Your task to perform on an android device: Open Reddit.com Image 0: 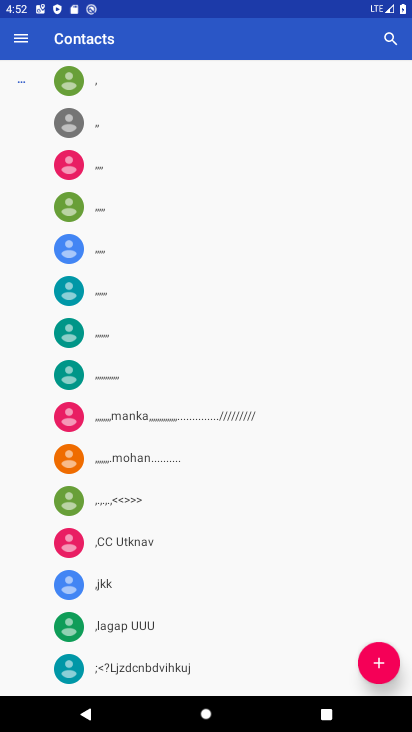
Step 0: press back button
Your task to perform on an android device: Open Reddit.com Image 1: 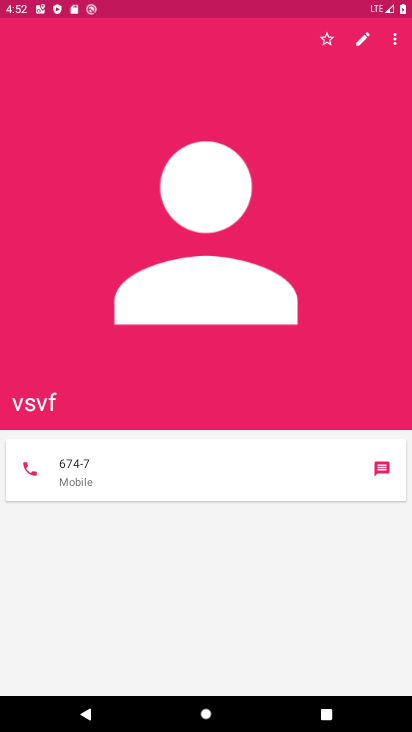
Step 1: press home button
Your task to perform on an android device: Open Reddit.com Image 2: 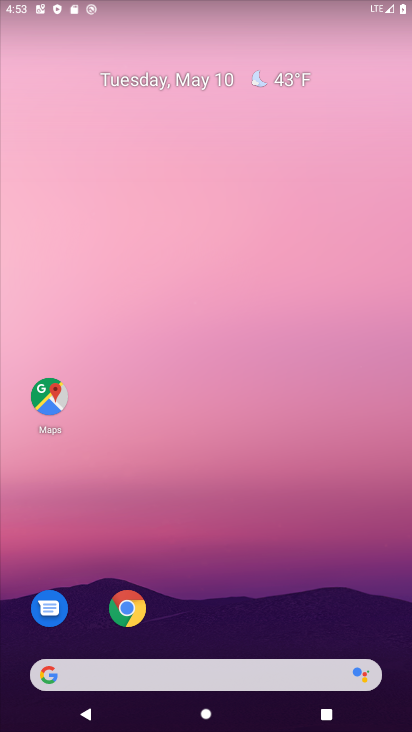
Step 2: click (125, 608)
Your task to perform on an android device: Open Reddit.com Image 3: 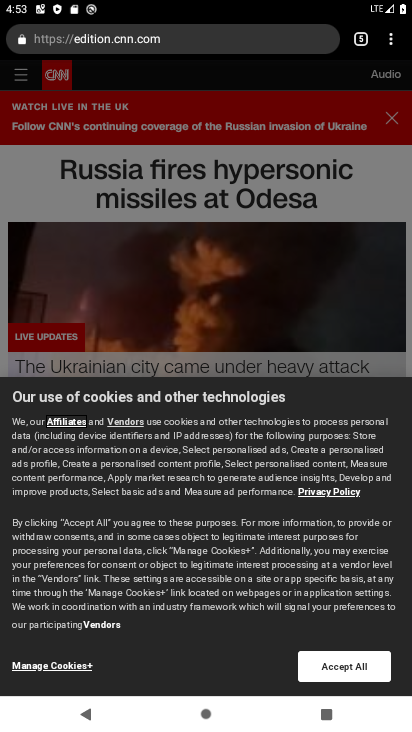
Step 3: click (244, 279)
Your task to perform on an android device: Open Reddit.com Image 4: 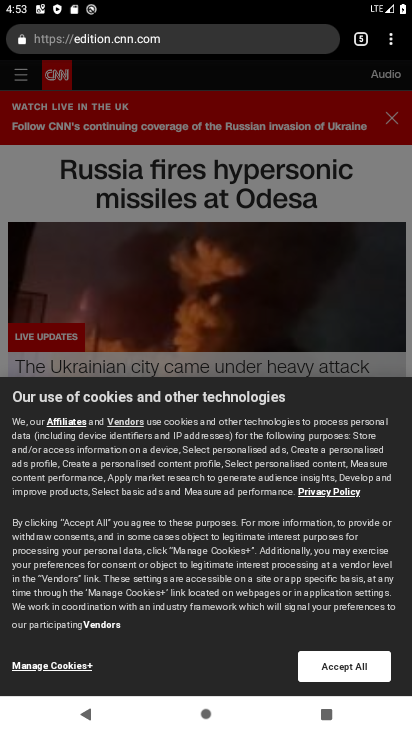
Step 4: click (351, 675)
Your task to perform on an android device: Open Reddit.com Image 5: 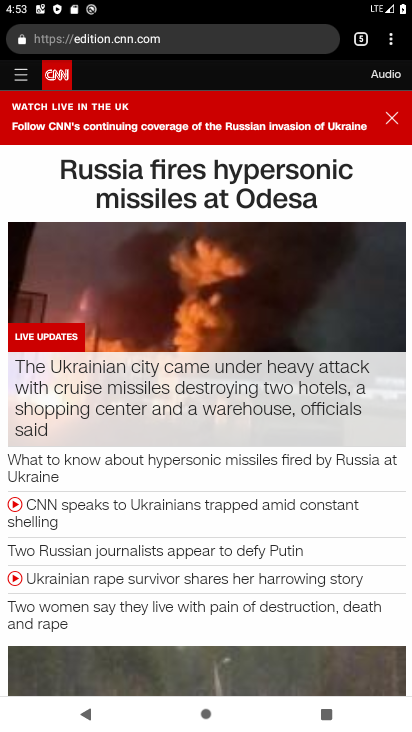
Step 5: click (365, 43)
Your task to perform on an android device: Open Reddit.com Image 6: 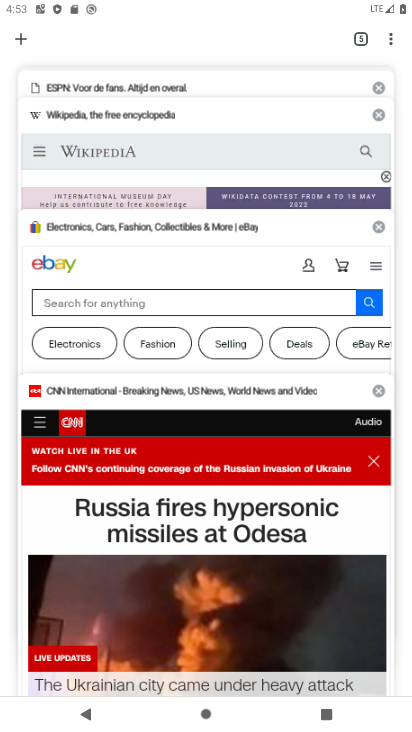
Step 6: click (14, 31)
Your task to perform on an android device: Open Reddit.com Image 7: 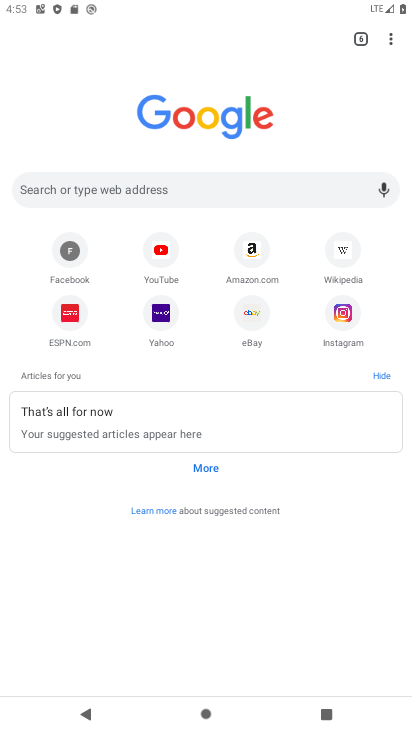
Step 7: click (134, 180)
Your task to perform on an android device: Open Reddit.com Image 8: 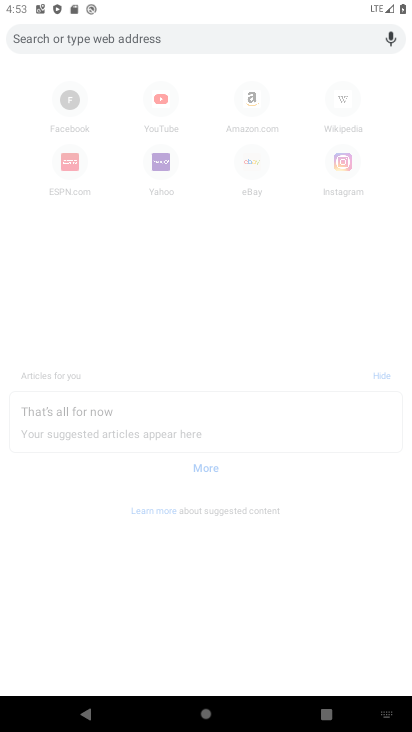
Step 8: type "reddit.com"
Your task to perform on an android device: Open Reddit.com Image 9: 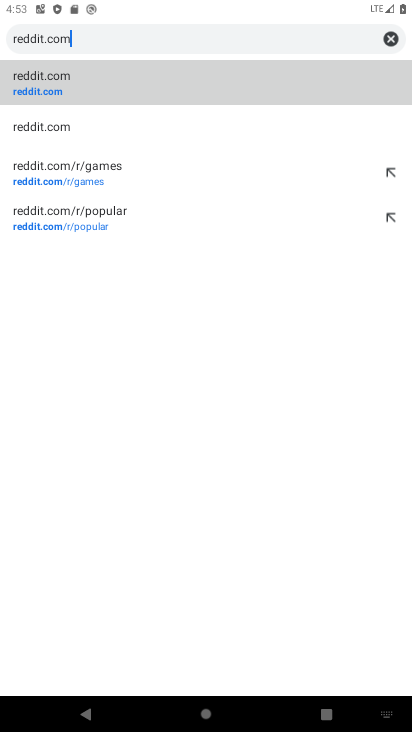
Step 9: click (56, 100)
Your task to perform on an android device: Open Reddit.com Image 10: 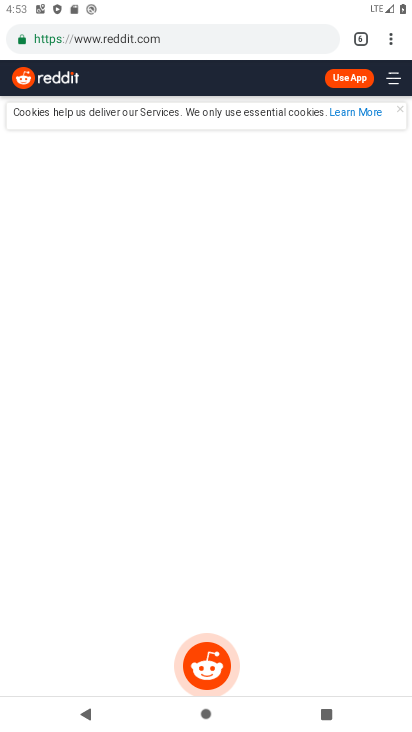
Step 10: task complete